Your task to perform on an android device: toggle show notifications on the lock screen Image 0: 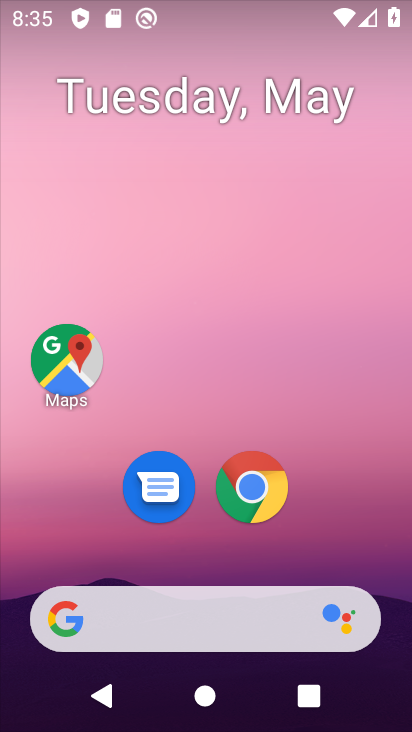
Step 0: drag from (187, 624) to (313, 109)
Your task to perform on an android device: toggle show notifications on the lock screen Image 1: 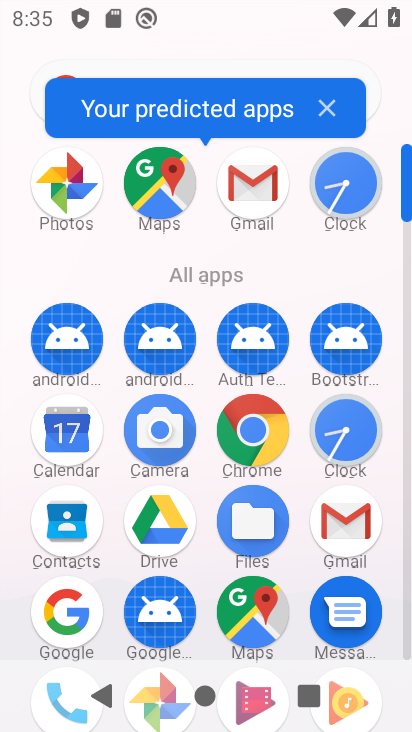
Step 1: drag from (205, 596) to (312, 250)
Your task to perform on an android device: toggle show notifications on the lock screen Image 2: 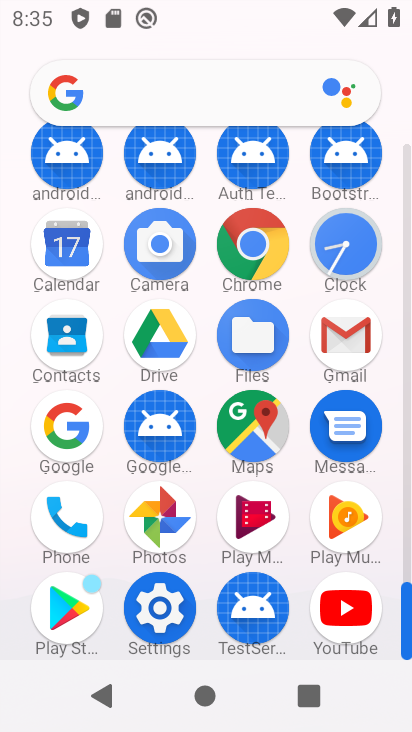
Step 2: click (162, 603)
Your task to perform on an android device: toggle show notifications on the lock screen Image 3: 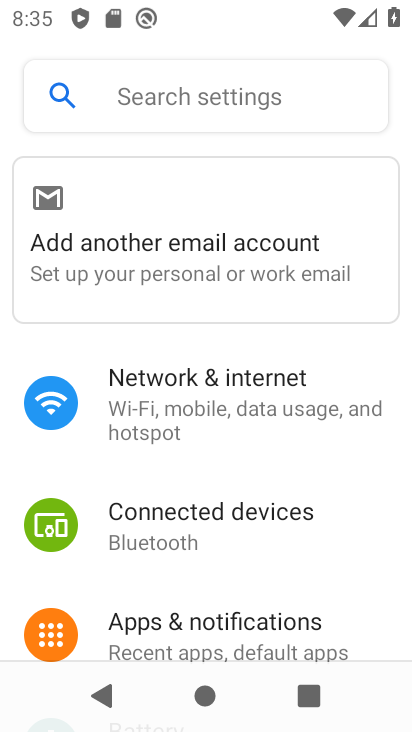
Step 3: click (204, 622)
Your task to perform on an android device: toggle show notifications on the lock screen Image 4: 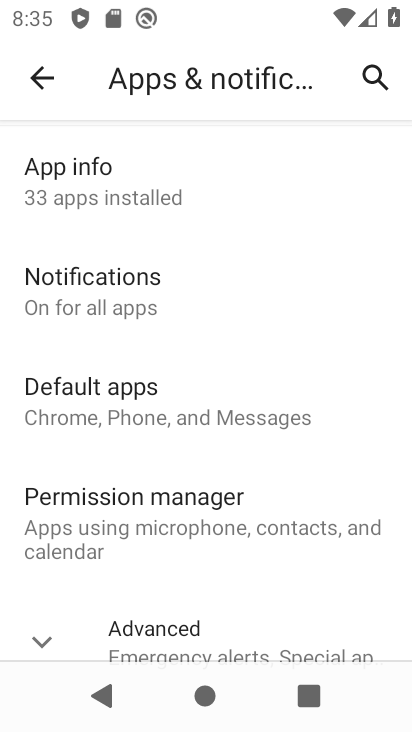
Step 4: click (132, 300)
Your task to perform on an android device: toggle show notifications on the lock screen Image 5: 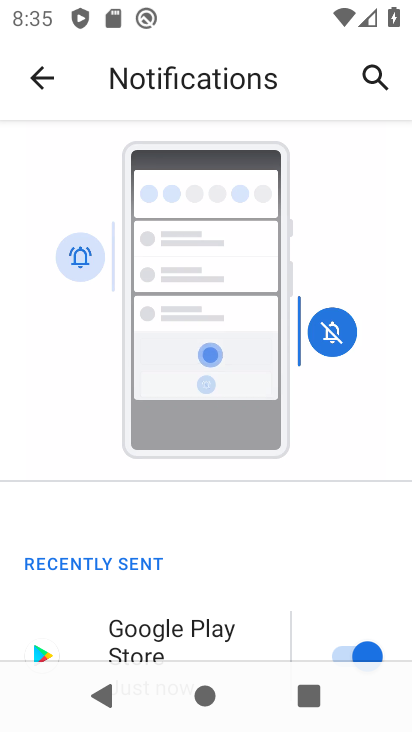
Step 5: drag from (185, 588) to (289, 158)
Your task to perform on an android device: toggle show notifications on the lock screen Image 6: 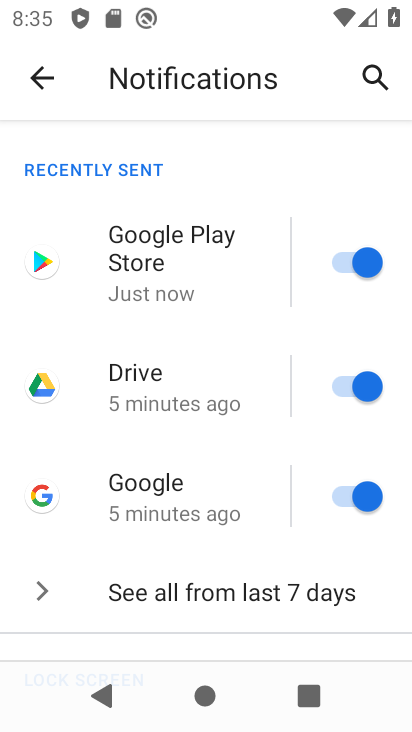
Step 6: drag from (227, 524) to (315, 111)
Your task to perform on an android device: toggle show notifications on the lock screen Image 7: 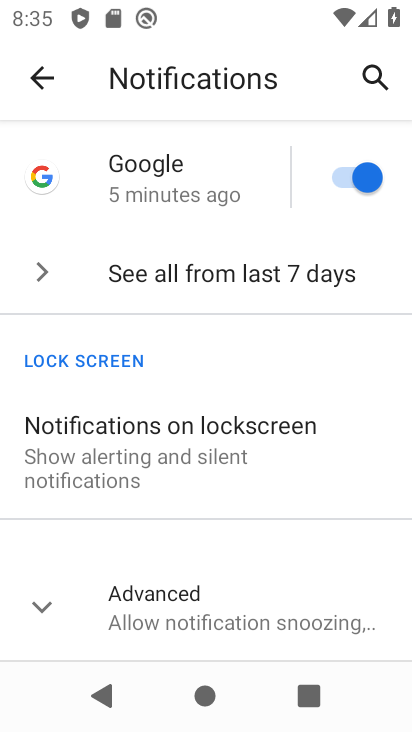
Step 7: click (198, 446)
Your task to perform on an android device: toggle show notifications on the lock screen Image 8: 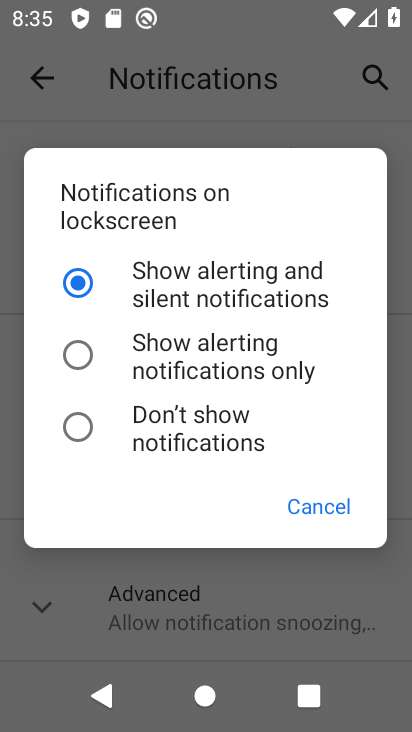
Step 8: click (79, 423)
Your task to perform on an android device: toggle show notifications on the lock screen Image 9: 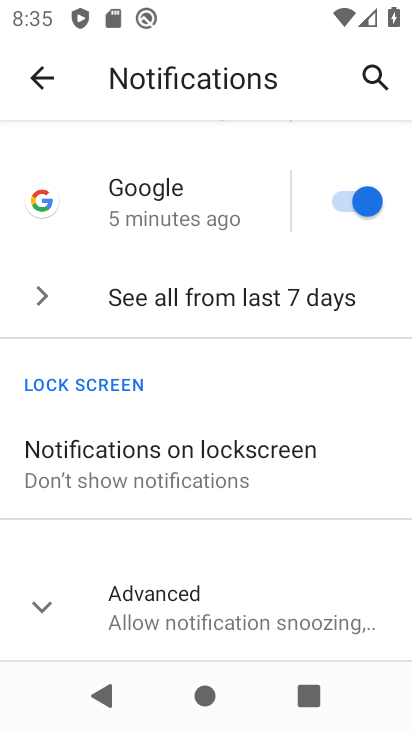
Step 9: task complete